Your task to perform on an android device: Show me popular videos on Youtube Image 0: 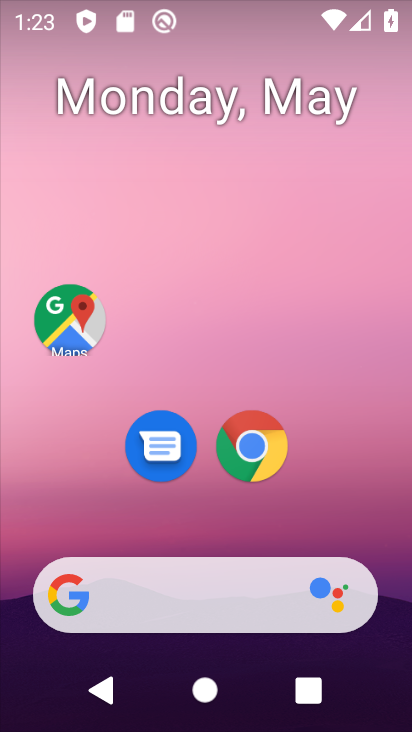
Step 0: drag from (201, 557) to (153, 18)
Your task to perform on an android device: Show me popular videos on Youtube Image 1: 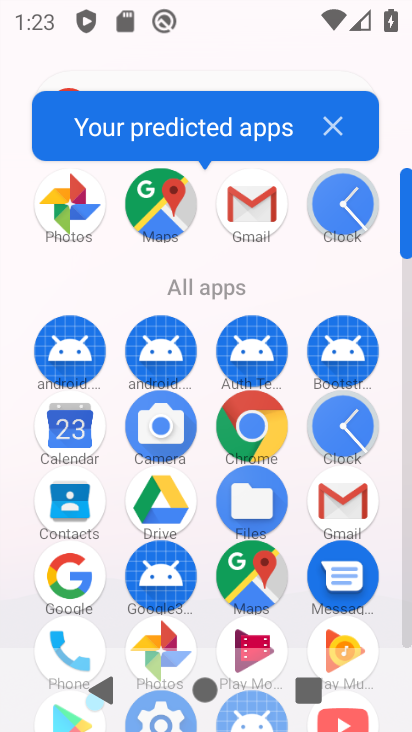
Step 1: drag from (235, 584) to (264, 23)
Your task to perform on an android device: Show me popular videos on Youtube Image 2: 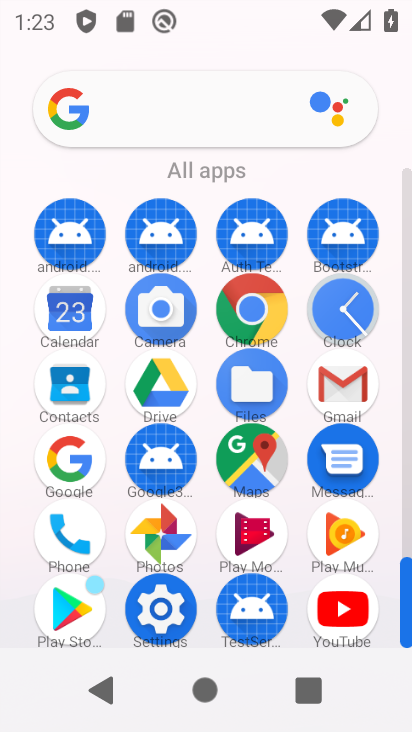
Step 2: click (337, 620)
Your task to perform on an android device: Show me popular videos on Youtube Image 3: 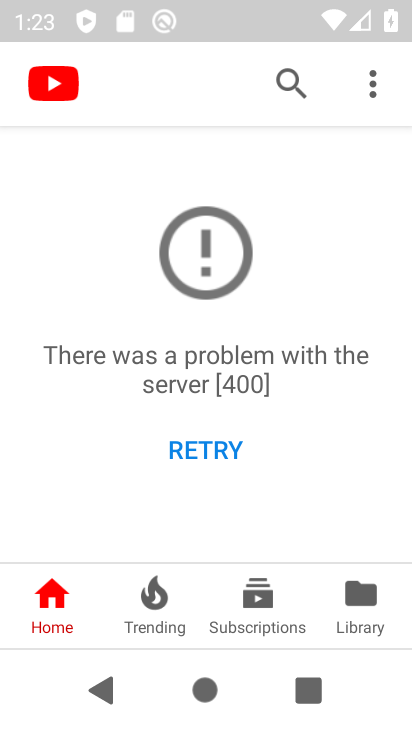
Step 3: click (160, 622)
Your task to perform on an android device: Show me popular videos on Youtube Image 4: 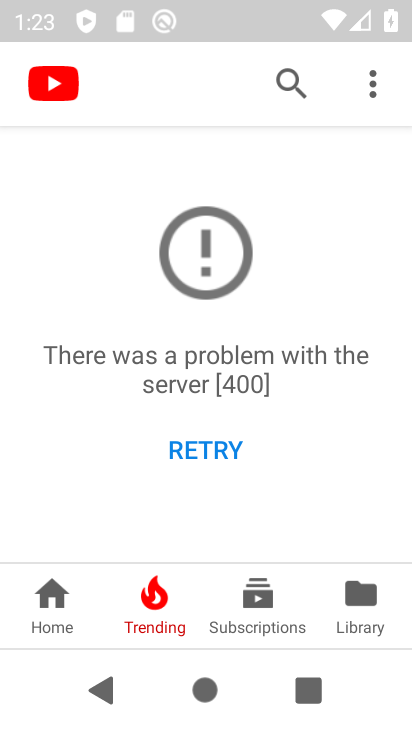
Step 4: task complete